Your task to perform on an android device: install app "Google Translate" Image 0: 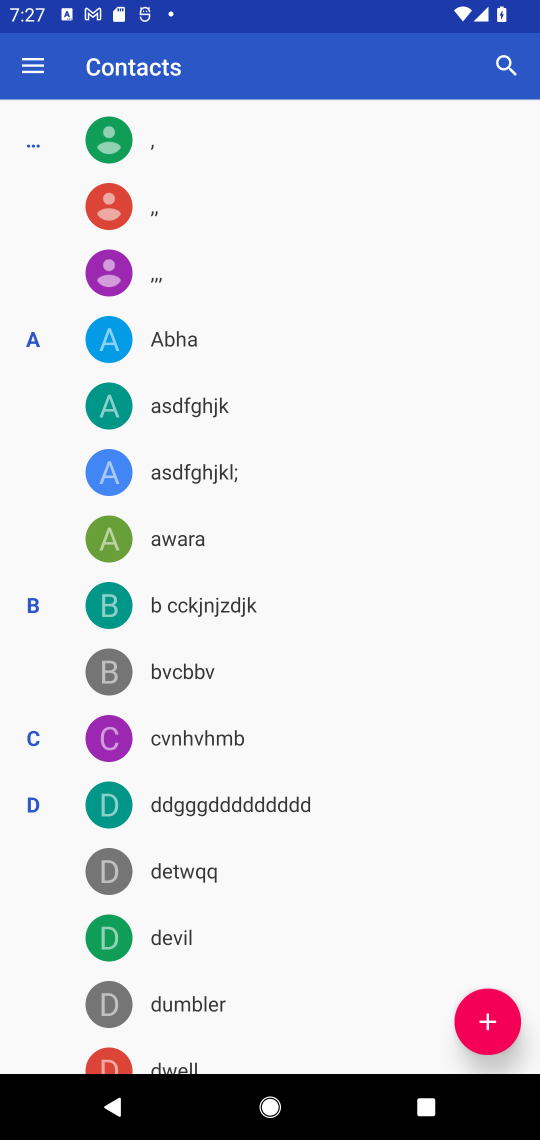
Step 0: press back button
Your task to perform on an android device: install app "Google Translate" Image 1: 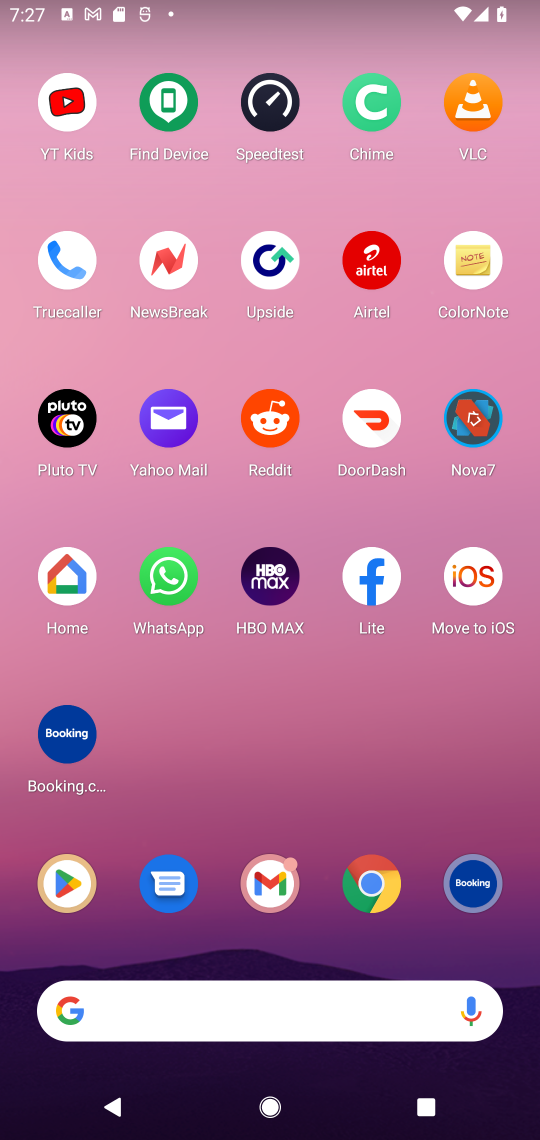
Step 1: click (50, 872)
Your task to perform on an android device: install app "Google Translate" Image 2: 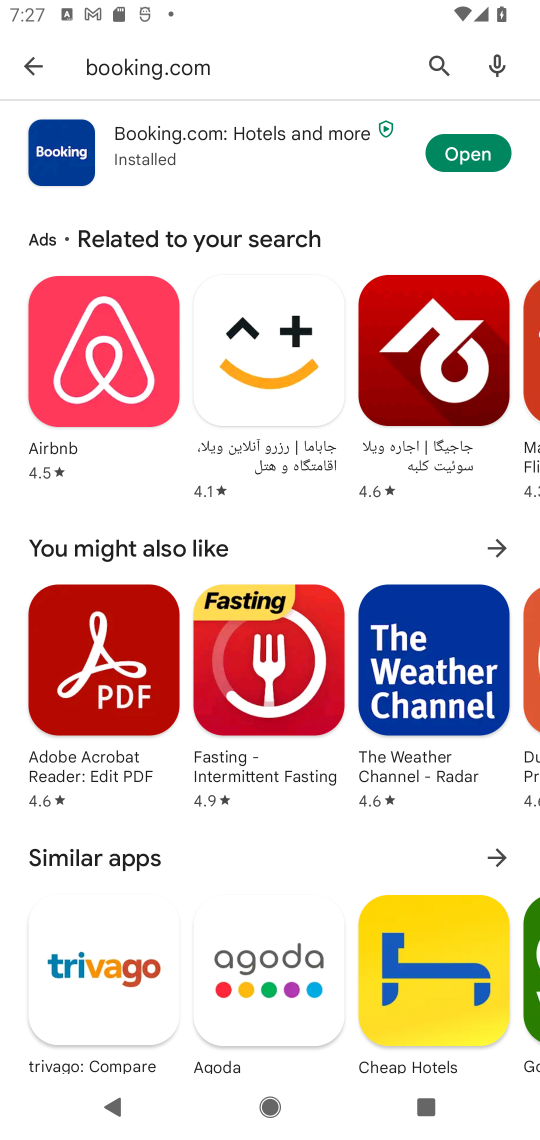
Step 2: click (440, 54)
Your task to perform on an android device: install app "Google Translate" Image 3: 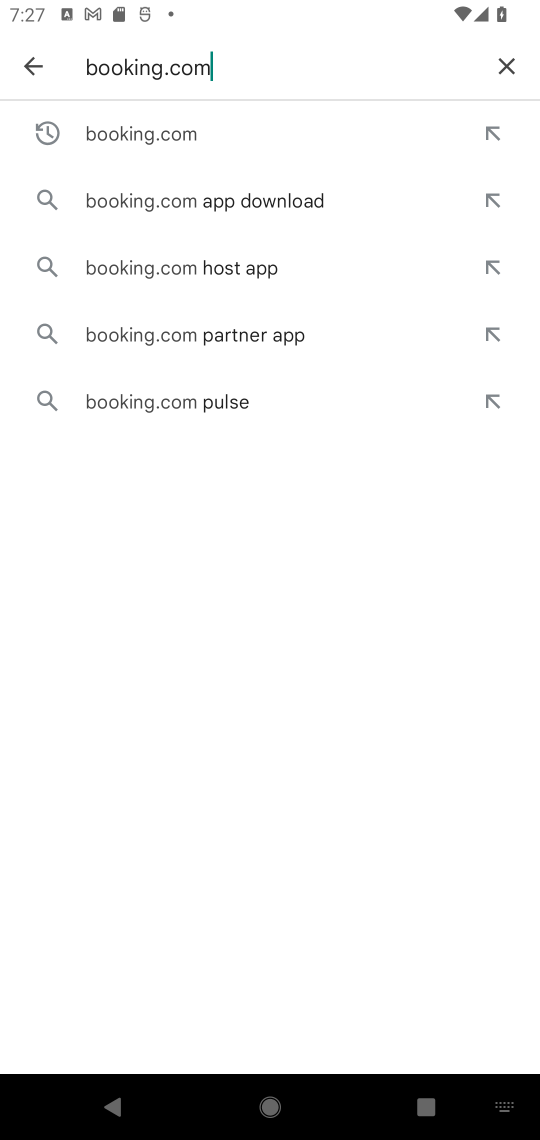
Step 3: click (507, 57)
Your task to perform on an android device: install app "Google Translate" Image 4: 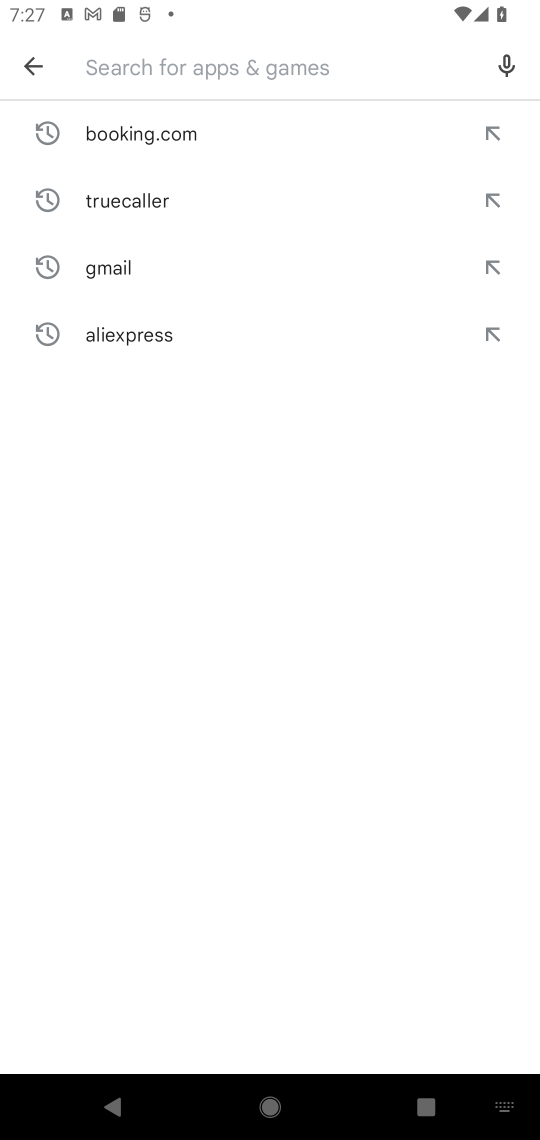
Step 4: click (116, 77)
Your task to perform on an android device: install app "Google Translate" Image 5: 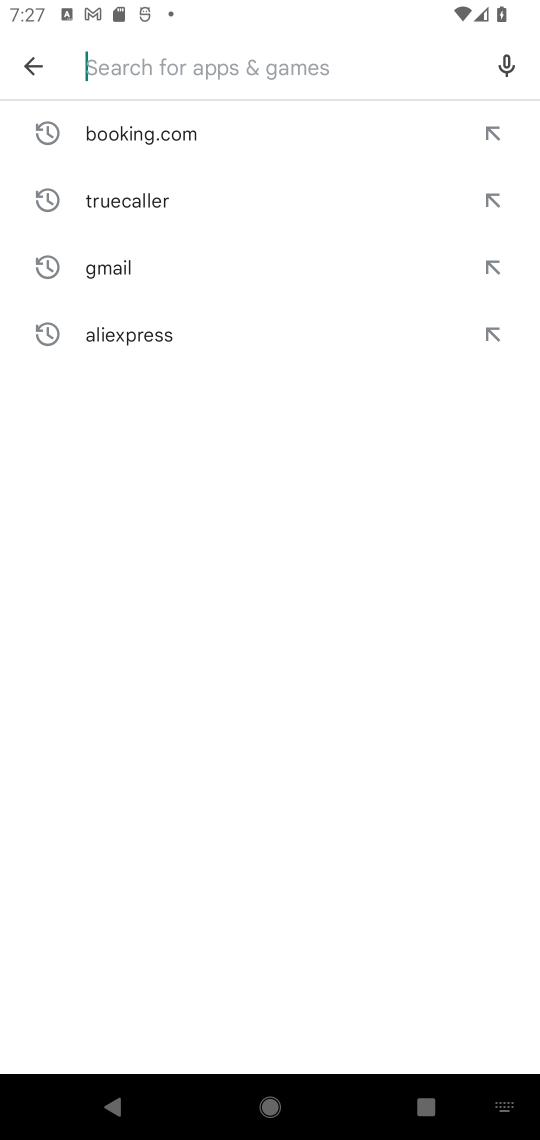
Step 5: type "google translate"
Your task to perform on an android device: install app "Google Translate" Image 6: 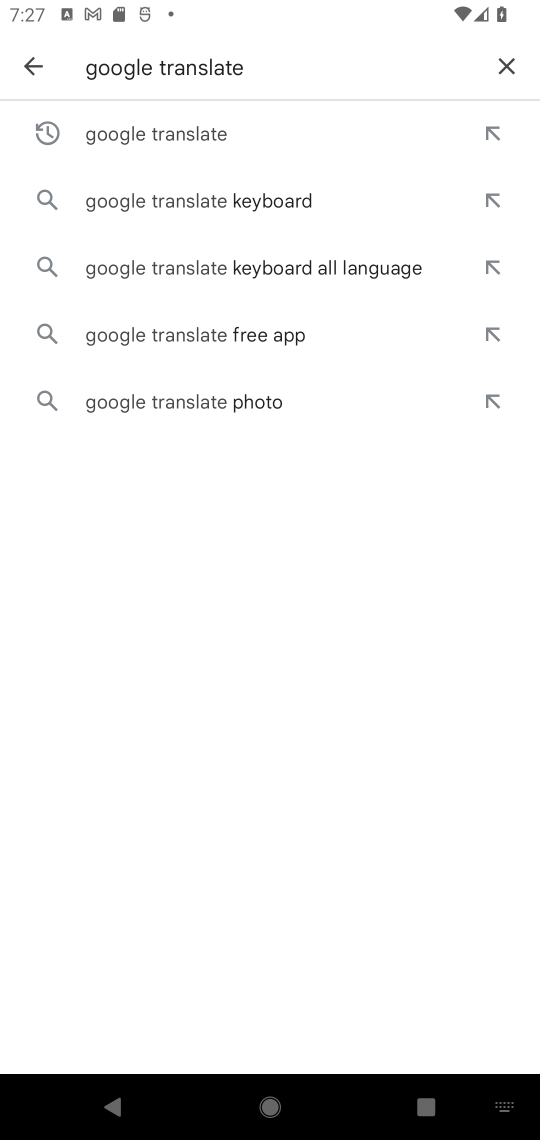
Step 6: click (180, 136)
Your task to perform on an android device: install app "Google Translate" Image 7: 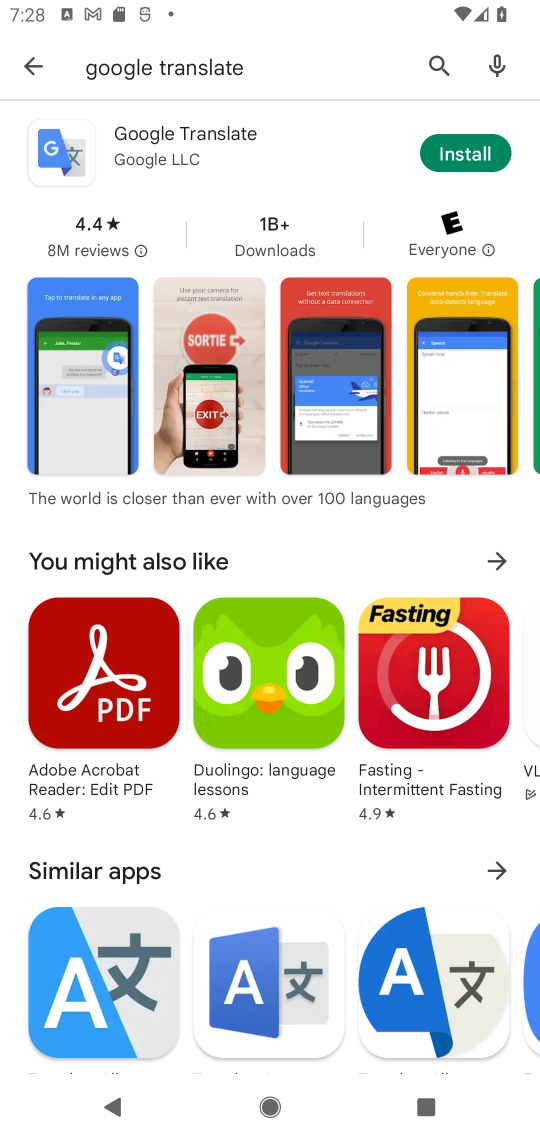
Step 7: click (445, 151)
Your task to perform on an android device: install app "Google Translate" Image 8: 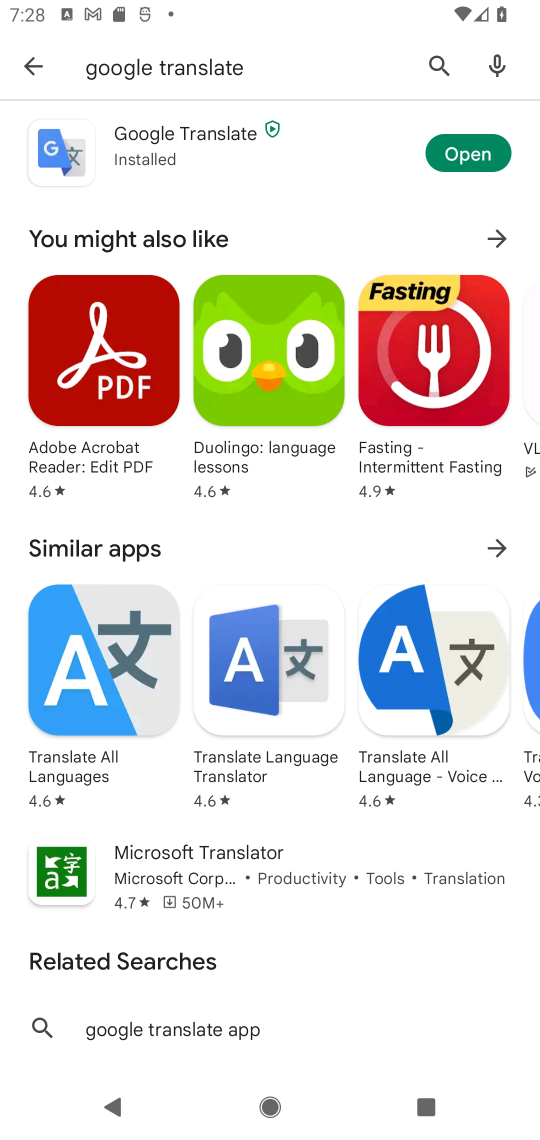
Step 8: task complete